Your task to perform on an android device: toggle sleep mode Image 0: 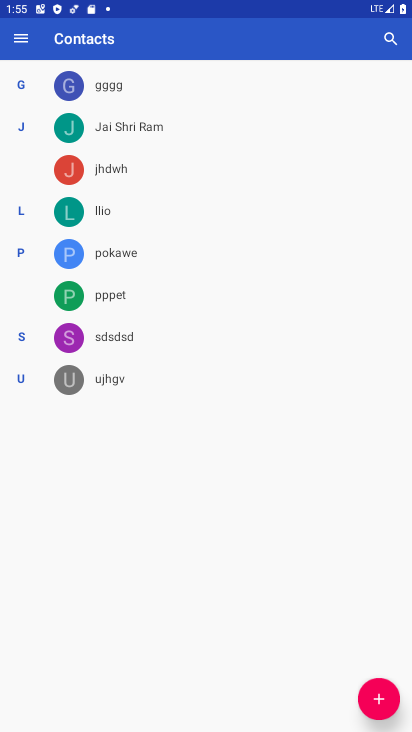
Step 0: press home button
Your task to perform on an android device: toggle sleep mode Image 1: 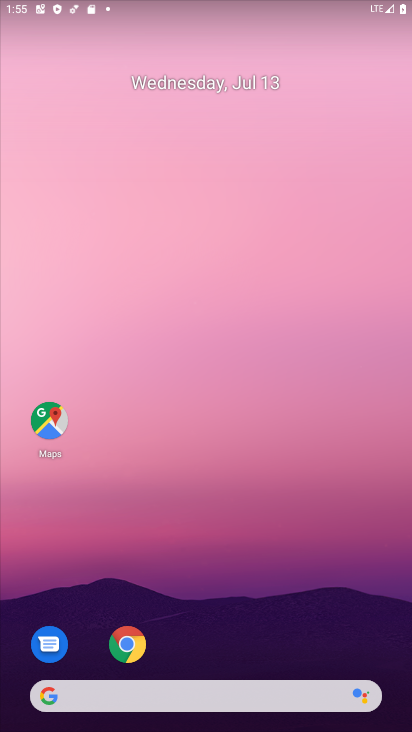
Step 1: drag from (344, 604) to (310, 77)
Your task to perform on an android device: toggle sleep mode Image 2: 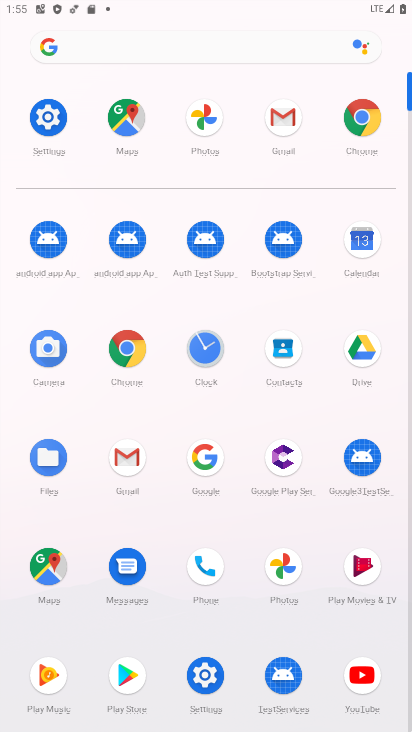
Step 2: click (47, 115)
Your task to perform on an android device: toggle sleep mode Image 3: 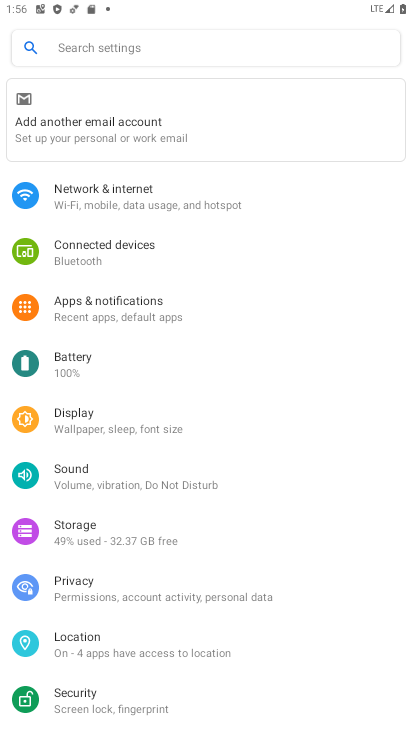
Step 3: click (79, 413)
Your task to perform on an android device: toggle sleep mode Image 4: 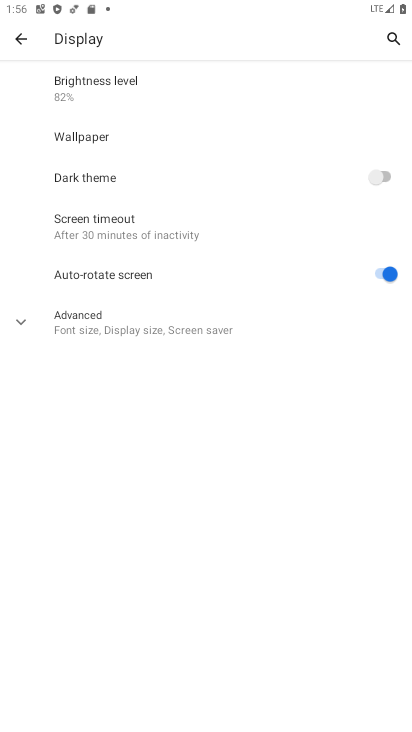
Step 4: click (207, 229)
Your task to perform on an android device: toggle sleep mode Image 5: 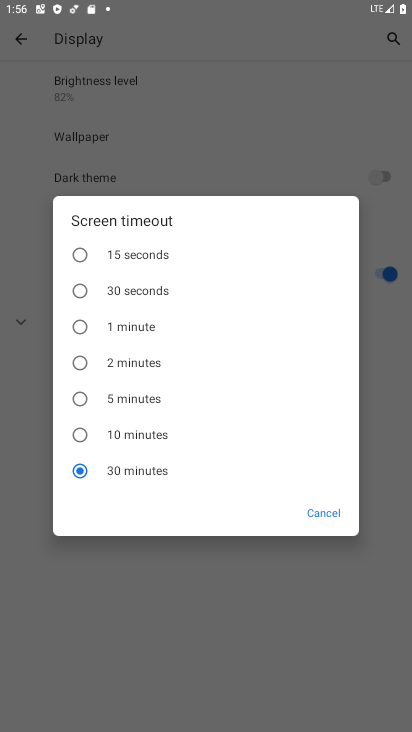
Step 5: click (133, 429)
Your task to perform on an android device: toggle sleep mode Image 6: 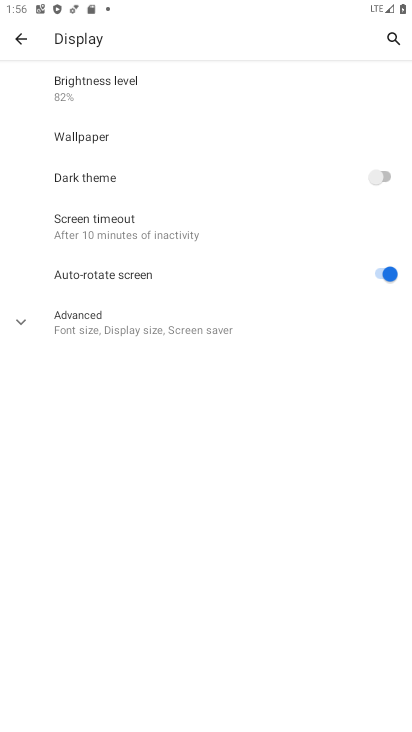
Step 6: task complete